Your task to perform on an android device: uninstall "Adobe Express: Graphic Design" Image 0: 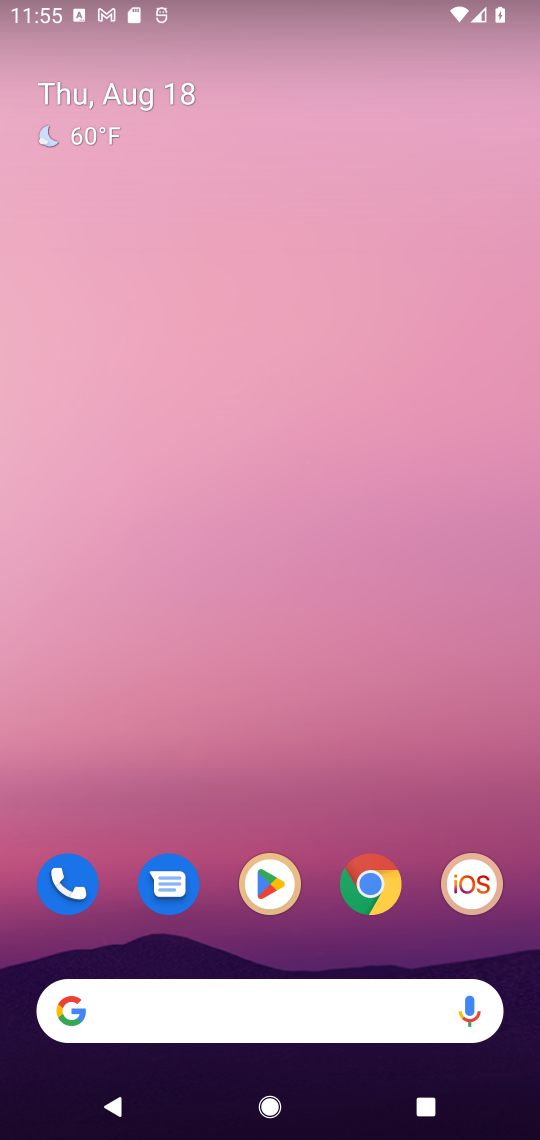
Step 0: drag from (257, 1021) to (271, 225)
Your task to perform on an android device: uninstall "Adobe Express: Graphic Design" Image 1: 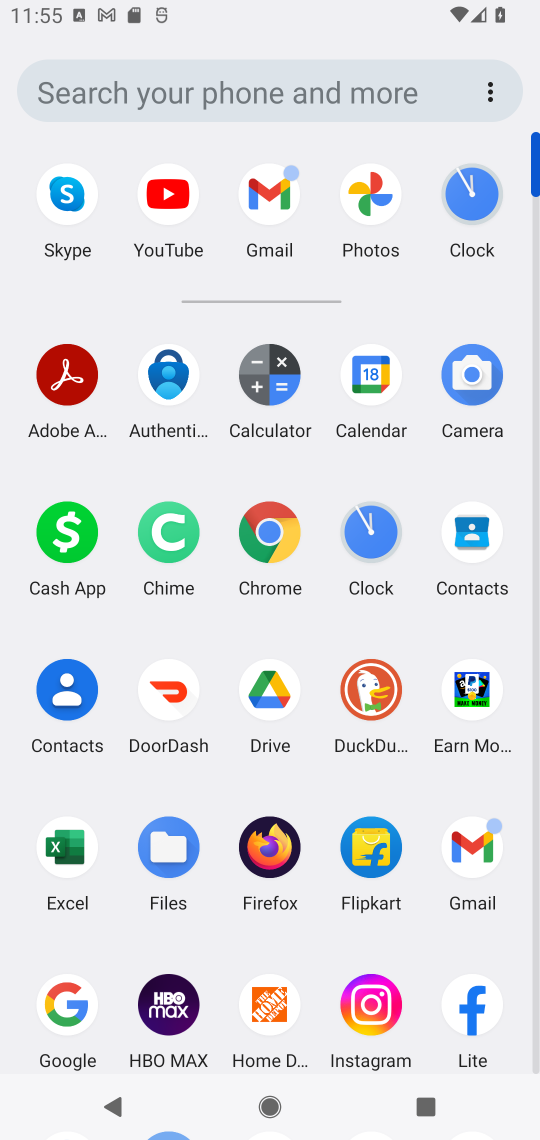
Step 1: drag from (287, 932) to (313, 445)
Your task to perform on an android device: uninstall "Adobe Express: Graphic Design" Image 2: 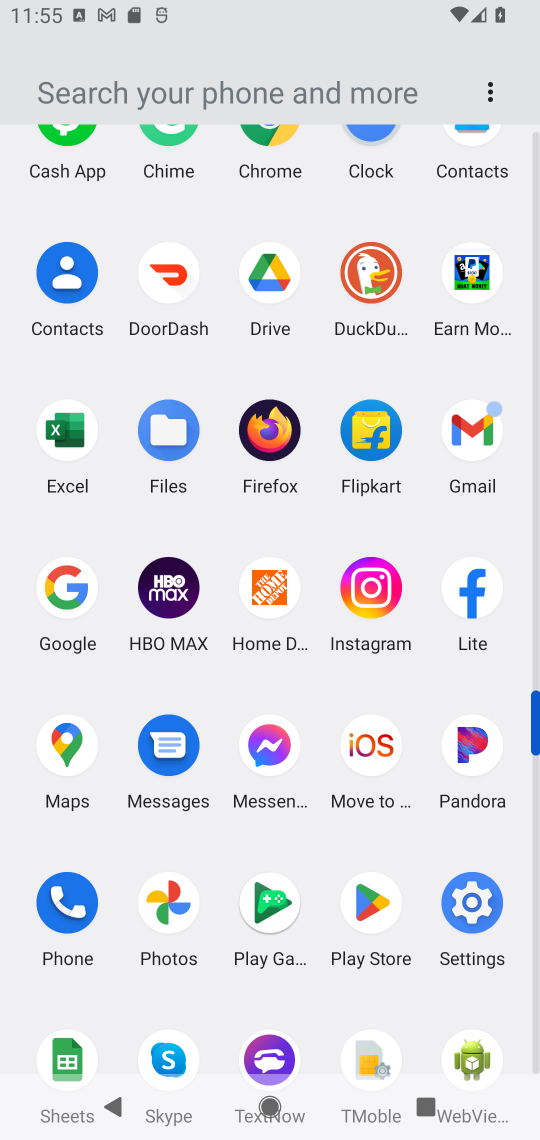
Step 2: click (377, 903)
Your task to perform on an android device: uninstall "Adobe Express: Graphic Design" Image 3: 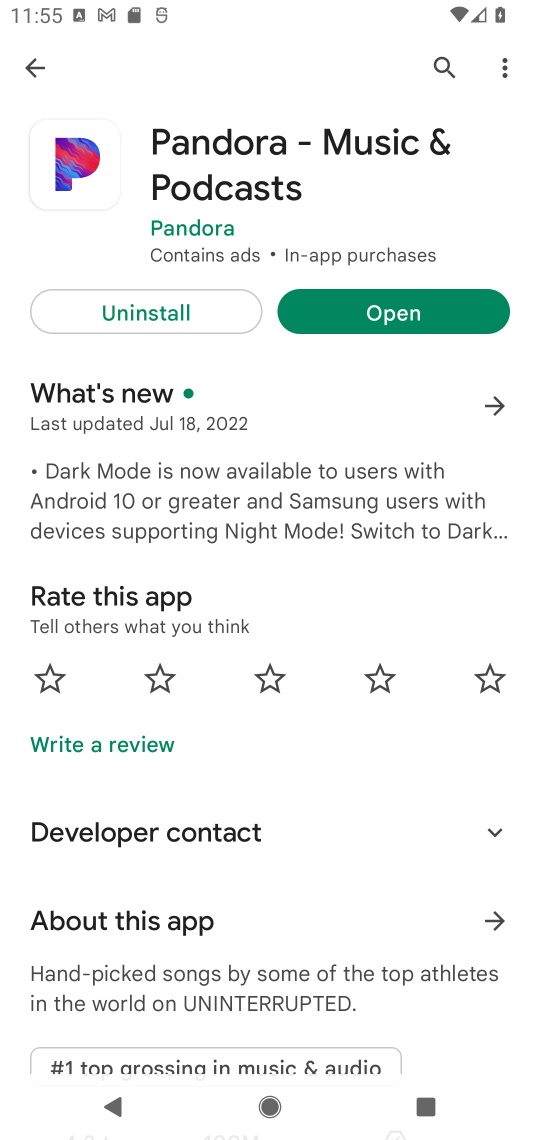
Step 3: press back button
Your task to perform on an android device: uninstall "Adobe Express: Graphic Design" Image 4: 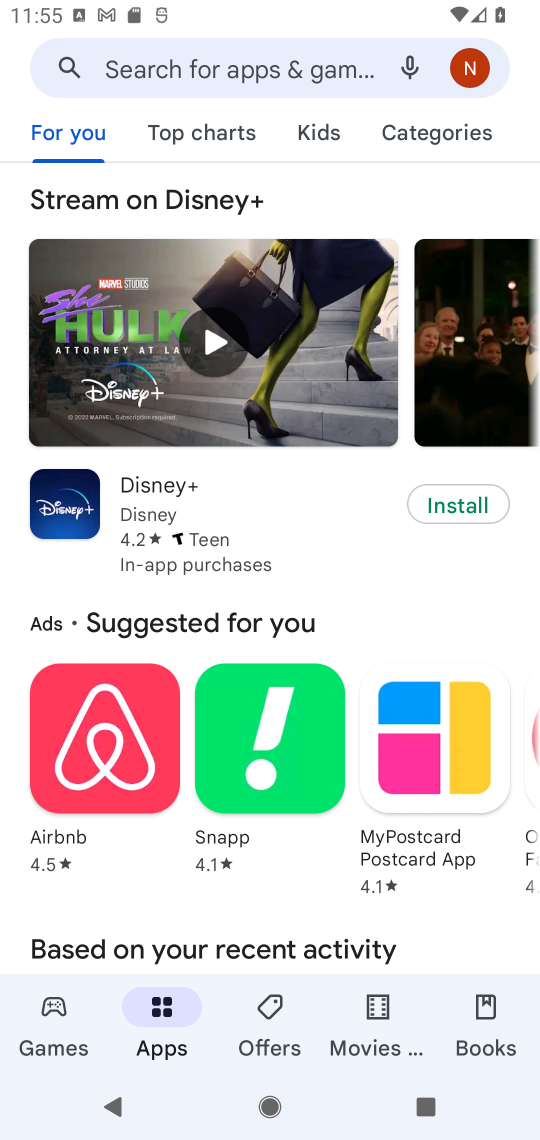
Step 4: click (285, 57)
Your task to perform on an android device: uninstall "Adobe Express: Graphic Design" Image 5: 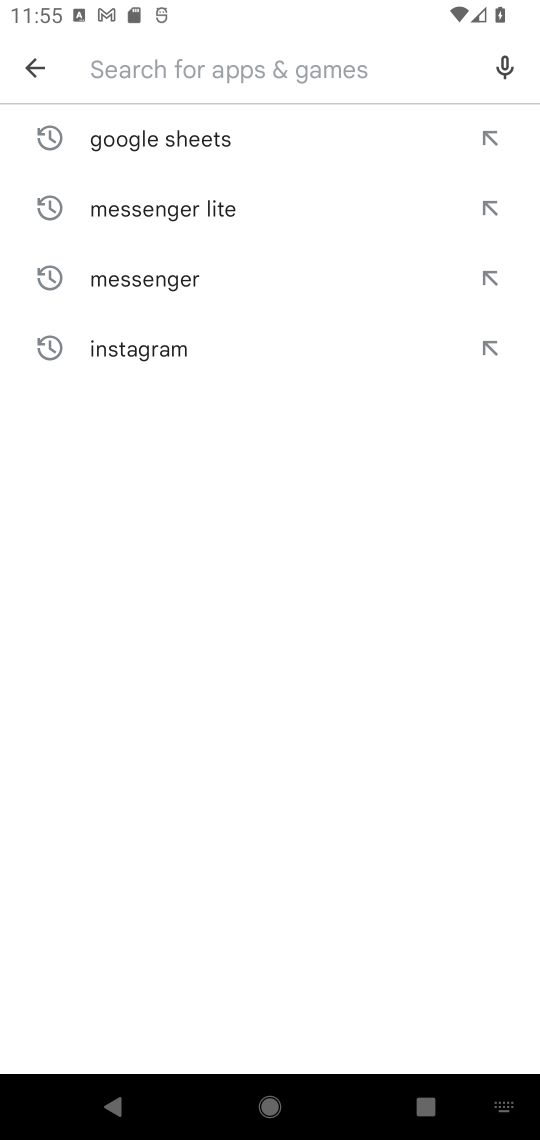
Step 5: type "Adobe Express: Graphic Design"
Your task to perform on an android device: uninstall "Adobe Express: Graphic Design" Image 6: 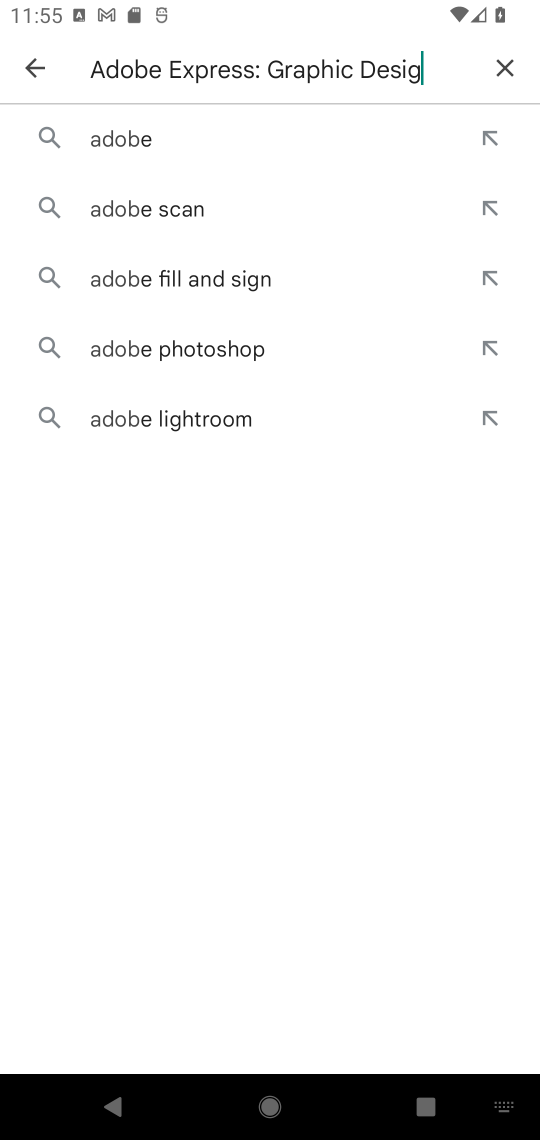
Step 6: type ""
Your task to perform on an android device: uninstall "Adobe Express: Graphic Design" Image 7: 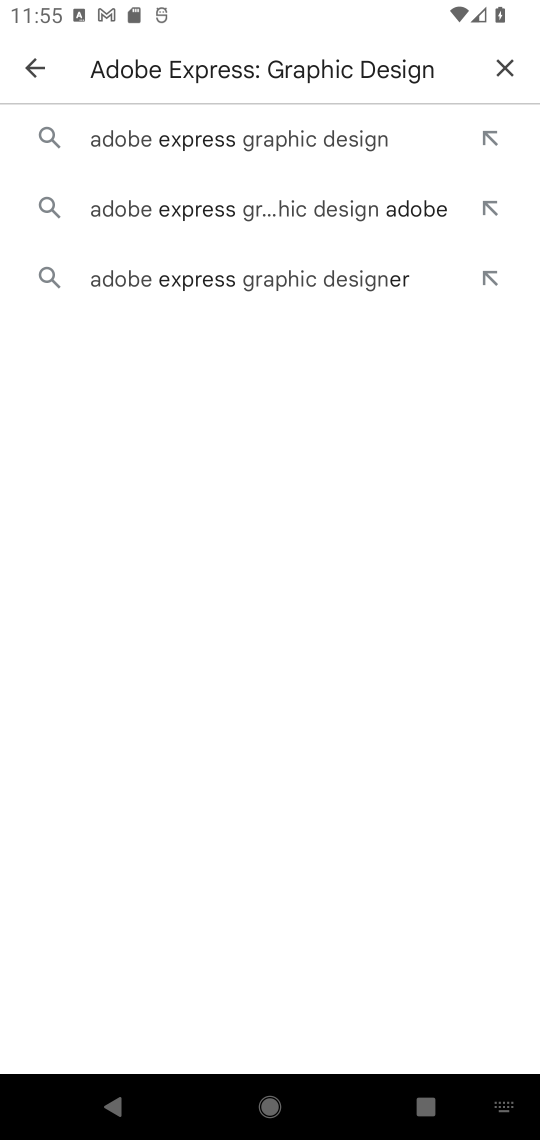
Step 7: click (204, 139)
Your task to perform on an android device: uninstall "Adobe Express: Graphic Design" Image 8: 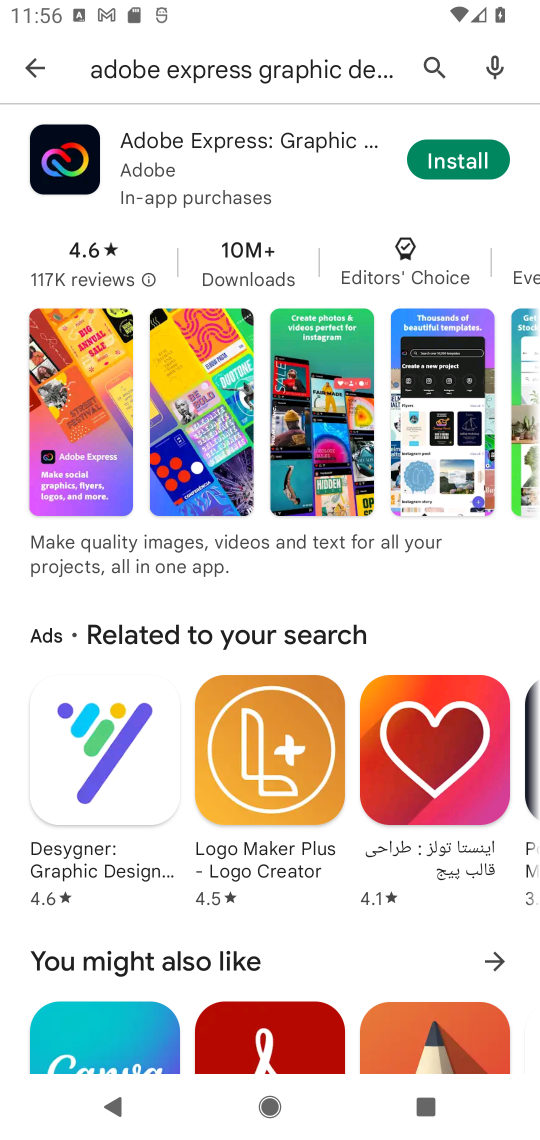
Step 8: task complete